Your task to perform on an android device: change your default location settings in chrome Image 0: 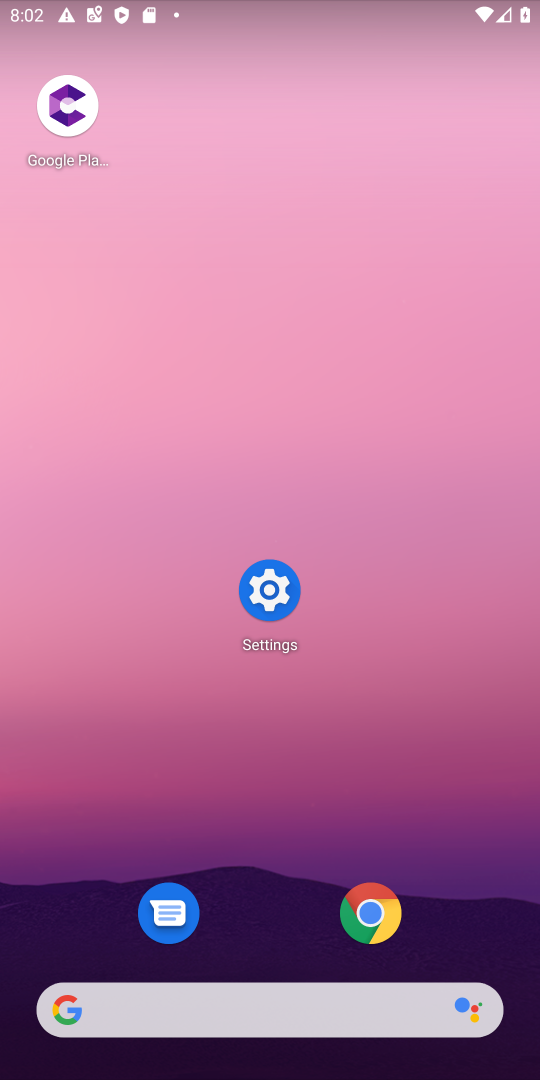
Step 0: click (372, 910)
Your task to perform on an android device: change your default location settings in chrome Image 1: 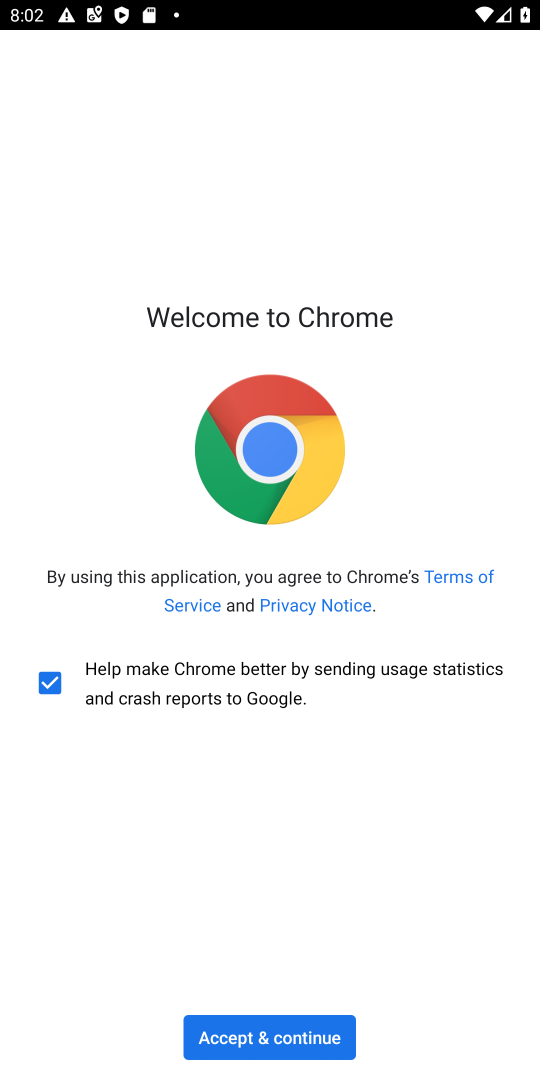
Step 1: click (263, 1039)
Your task to perform on an android device: change your default location settings in chrome Image 2: 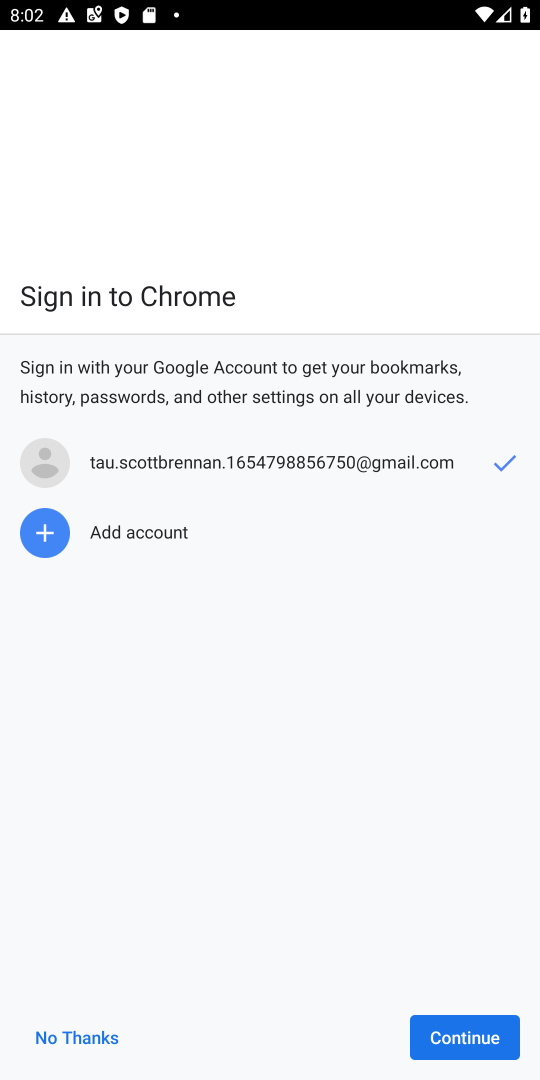
Step 2: click (472, 1024)
Your task to perform on an android device: change your default location settings in chrome Image 3: 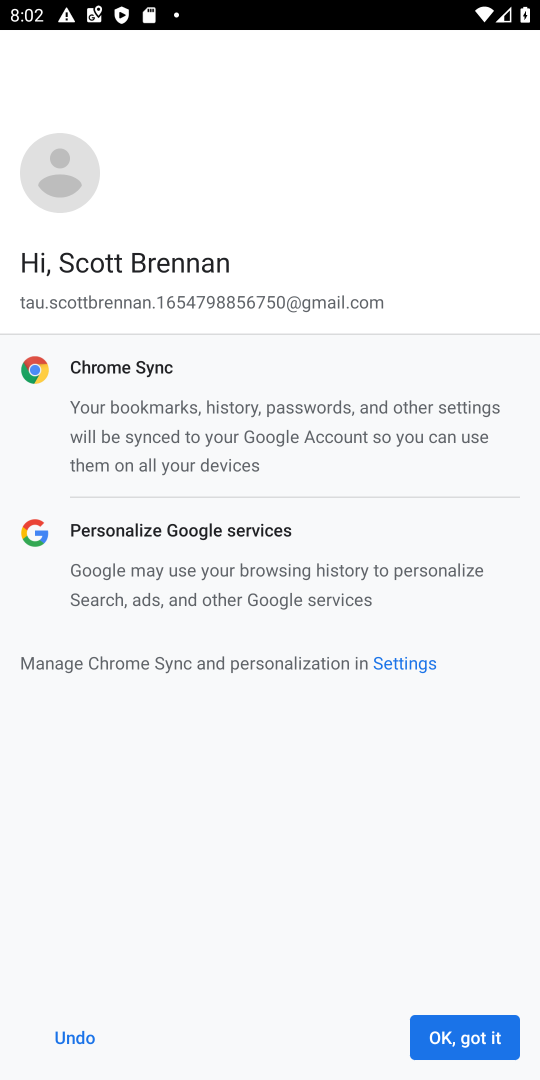
Step 3: click (464, 1054)
Your task to perform on an android device: change your default location settings in chrome Image 4: 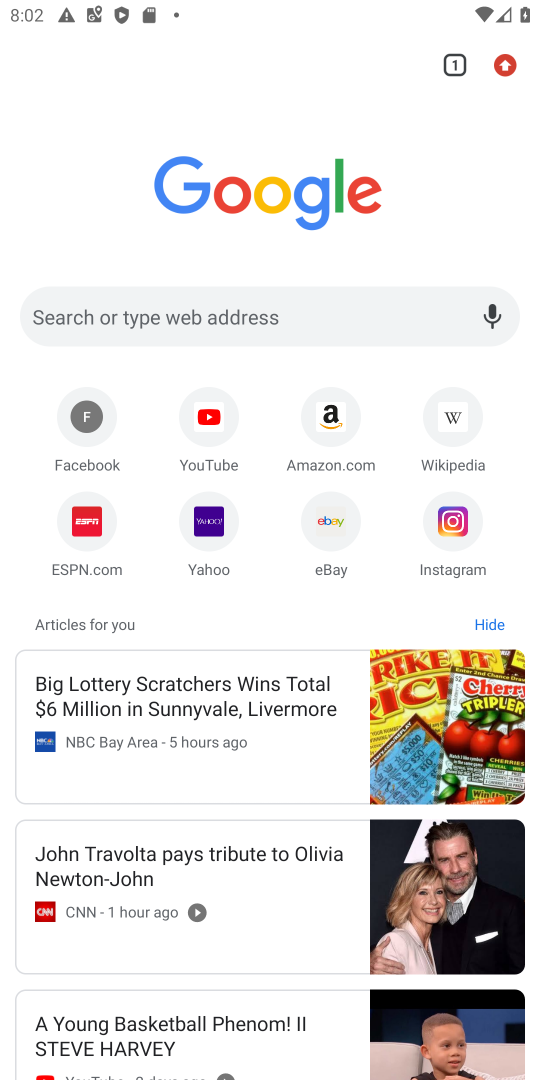
Step 4: drag from (506, 62) to (295, 617)
Your task to perform on an android device: change your default location settings in chrome Image 5: 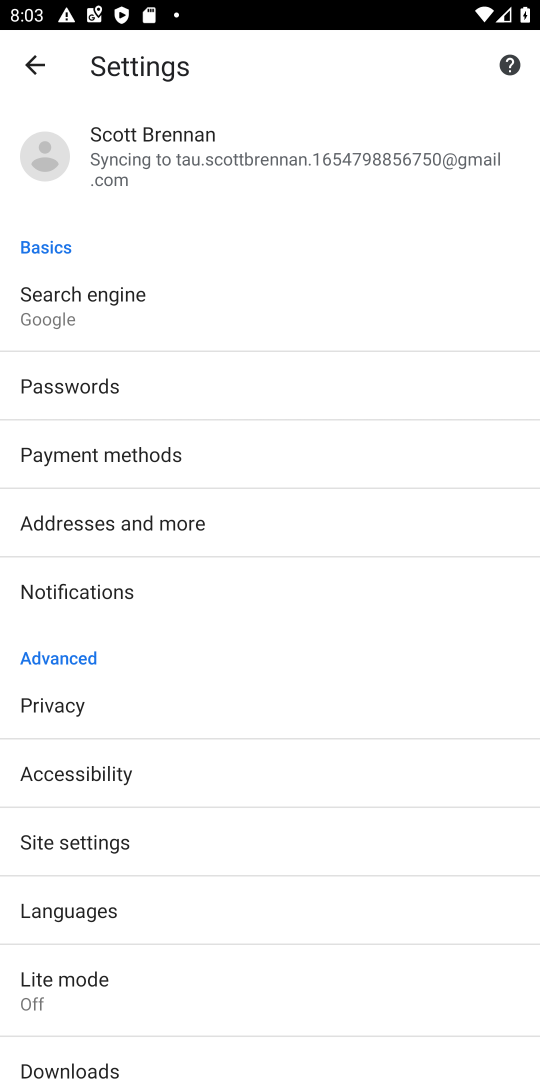
Step 5: click (84, 839)
Your task to perform on an android device: change your default location settings in chrome Image 6: 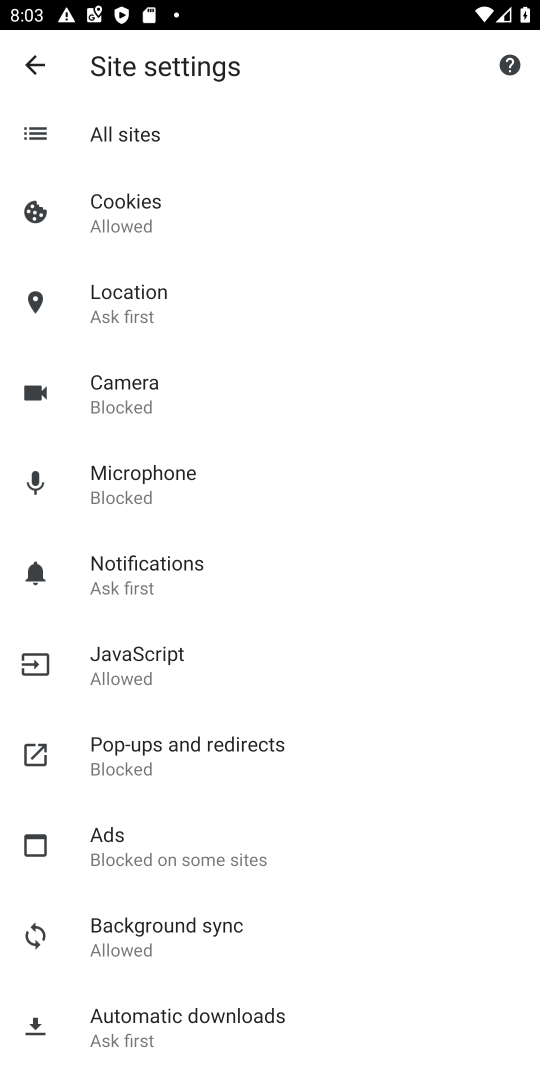
Step 6: click (151, 314)
Your task to perform on an android device: change your default location settings in chrome Image 7: 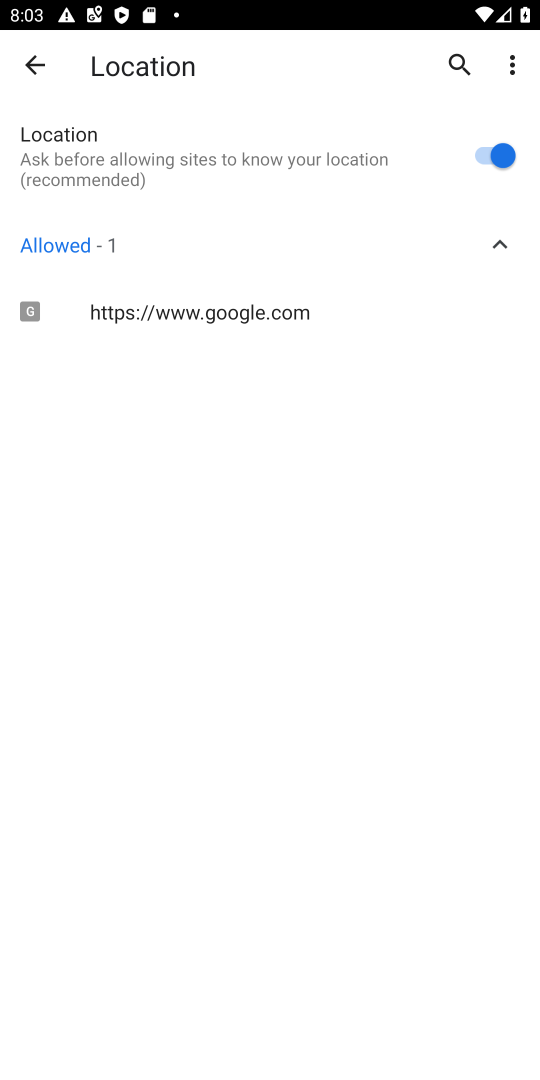
Step 7: click (488, 157)
Your task to perform on an android device: change your default location settings in chrome Image 8: 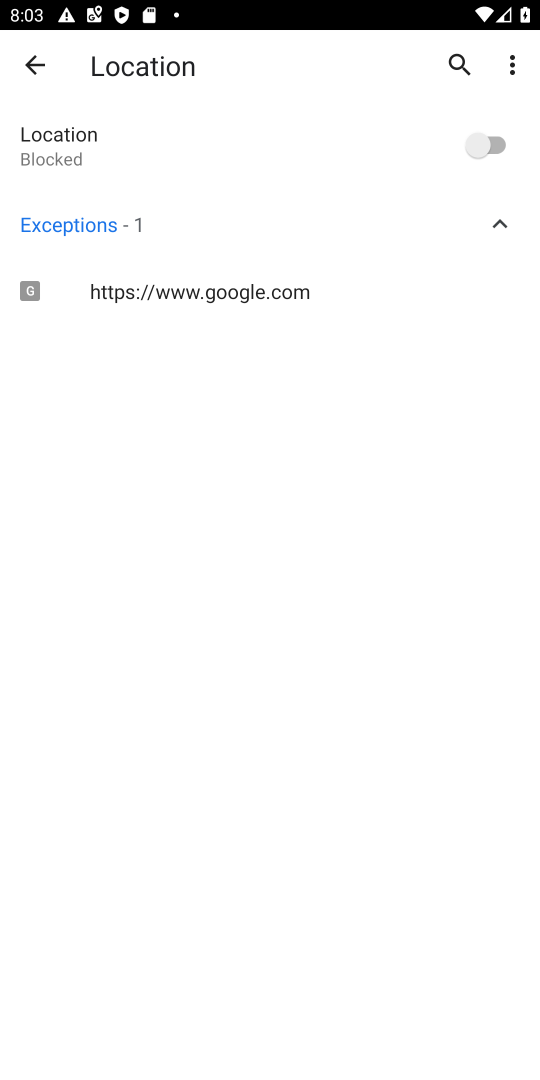
Step 8: task complete